Your task to perform on an android device: toggle wifi Image 0: 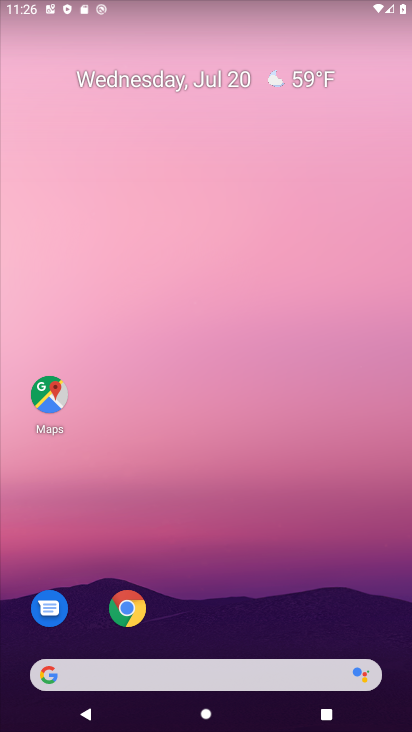
Step 0: drag from (290, 590) to (14, 146)
Your task to perform on an android device: toggle wifi Image 1: 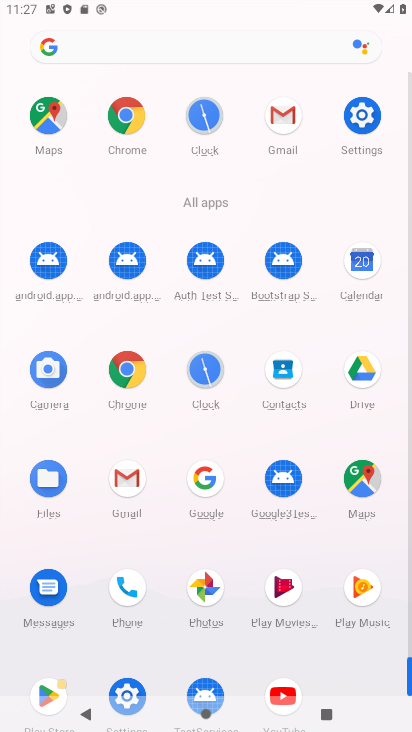
Step 1: click (370, 122)
Your task to perform on an android device: toggle wifi Image 2: 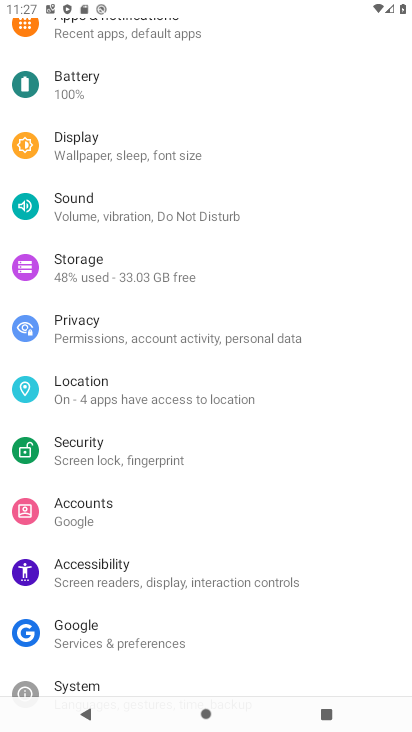
Step 2: drag from (168, 129) to (172, 642)
Your task to perform on an android device: toggle wifi Image 3: 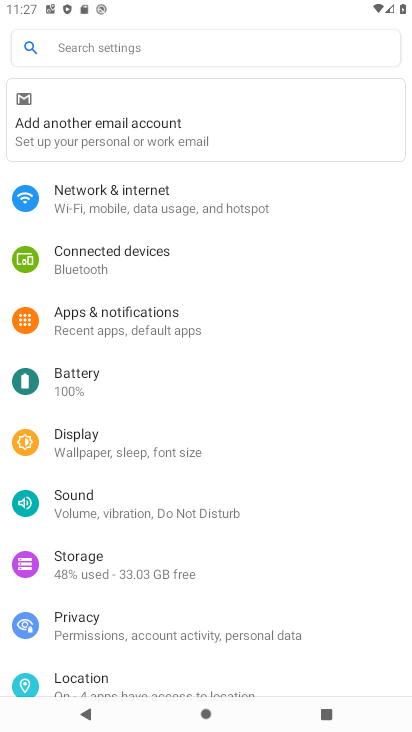
Step 3: click (91, 204)
Your task to perform on an android device: toggle wifi Image 4: 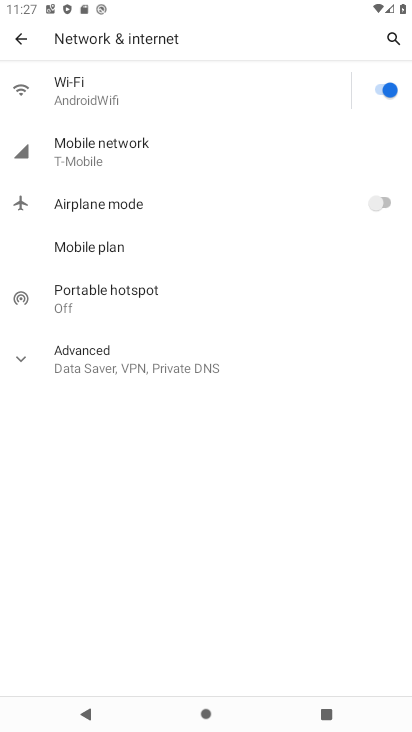
Step 4: click (386, 99)
Your task to perform on an android device: toggle wifi Image 5: 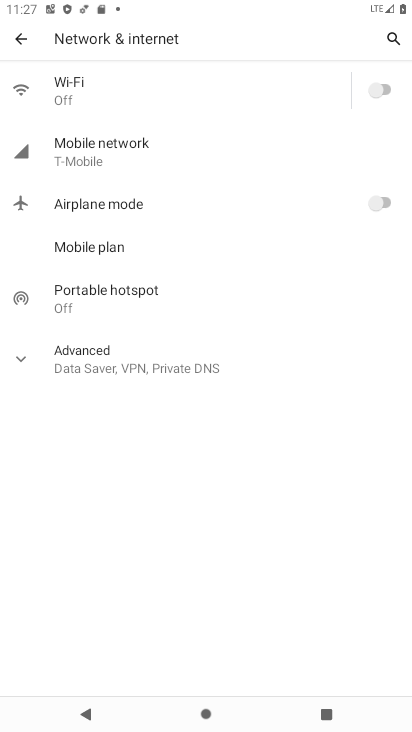
Step 5: task complete